Your task to perform on an android device: Open network settings Image 0: 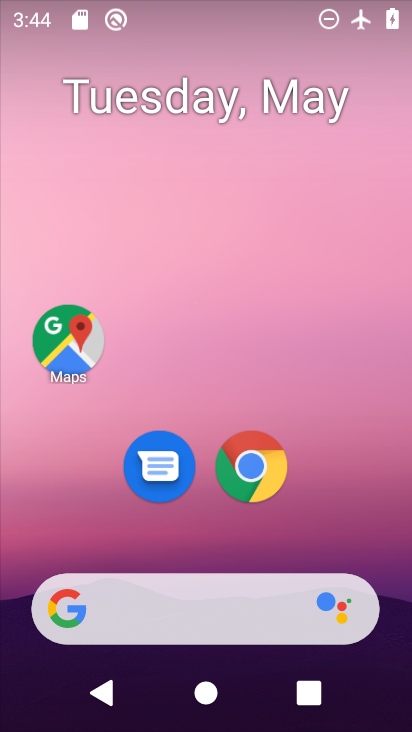
Step 0: drag from (373, 442) to (383, 67)
Your task to perform on an android device: Open network settings Image 1: 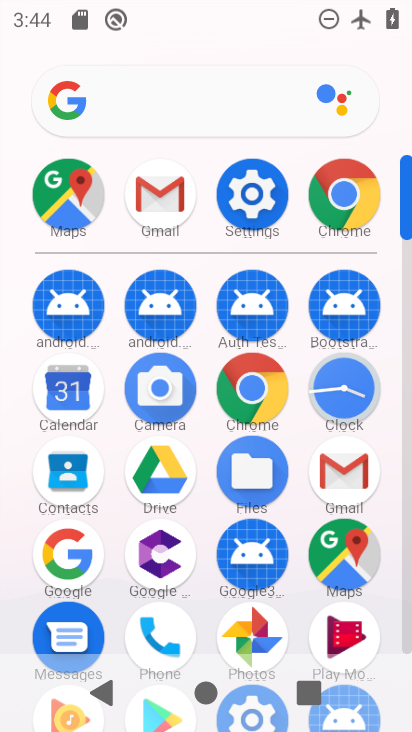
Step 1: click (250, 215)
Your task to perform on an android device: Open network settings Image 2: 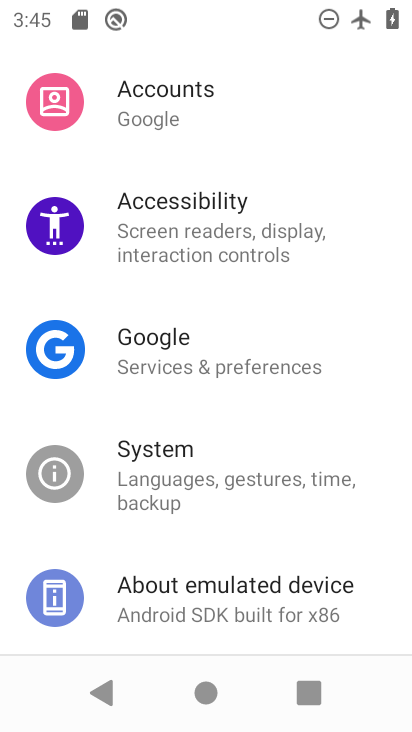
Step 2: drag from (262, 106) to (166, 694)
Your task to perform on an android device: Open network settings Image 3: 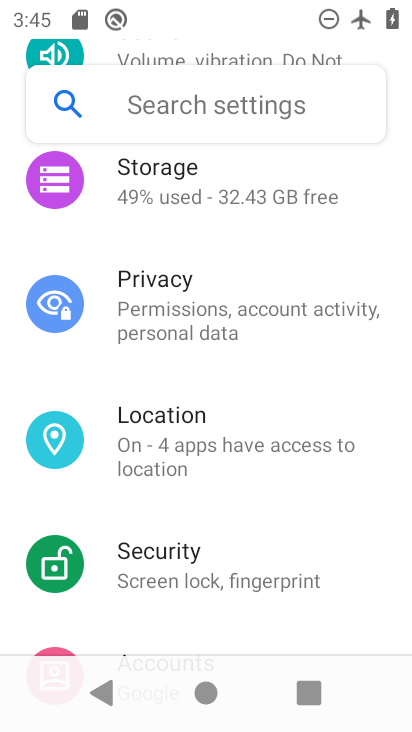
Step 3: drag from (207, 223) to (122, 724)
Your task to perform on an android device: Open network settings Image 4: 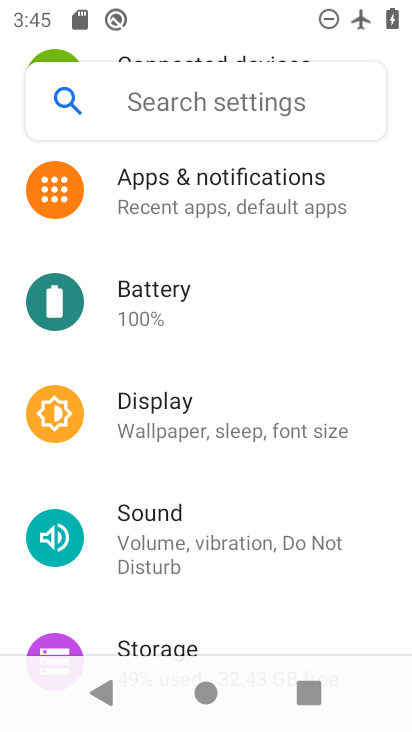
Step 4: drag from (260, 191) to (268, 652)
Your task to perform on an android device: Open network settings Image 5: 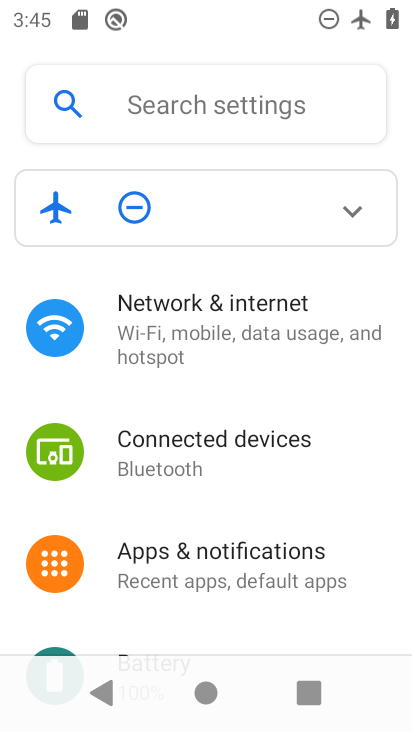
Step 5: click (235, 309)
Your task to perform on an android device: Open network settings Image 6: 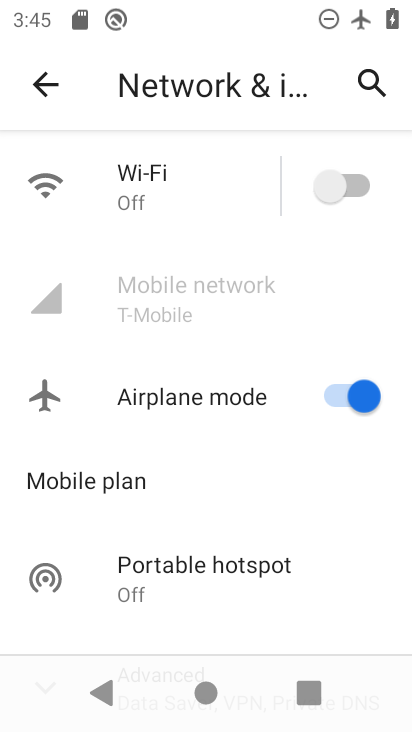
Step 6: task complete